Your task to perform on an android device: Check the settings for the Lyft app Image 0: 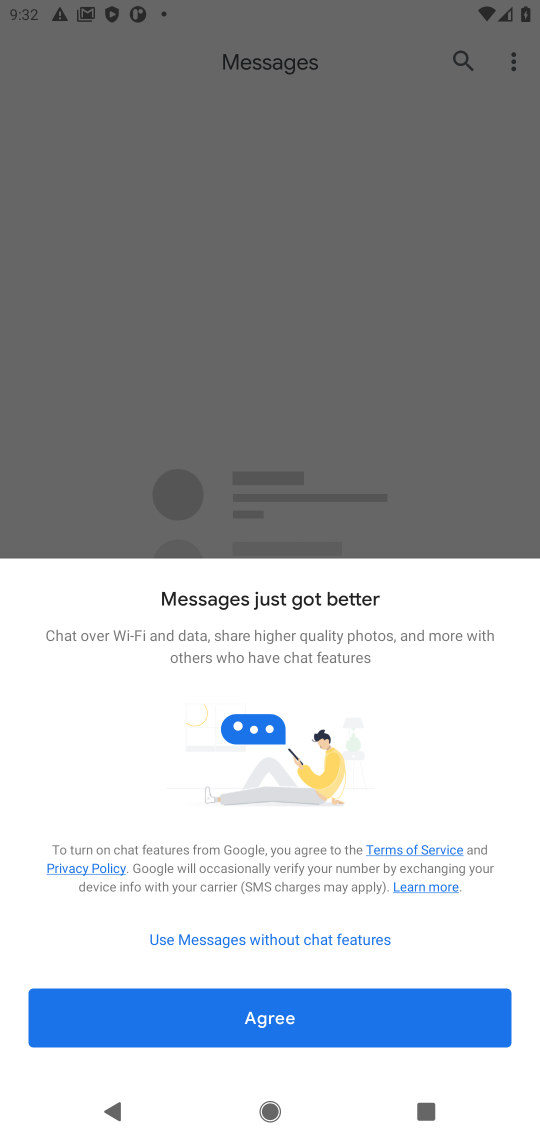
Step 0: press home button
Your task to perform on an android device: Check the settings for the Lyft app Image 1: 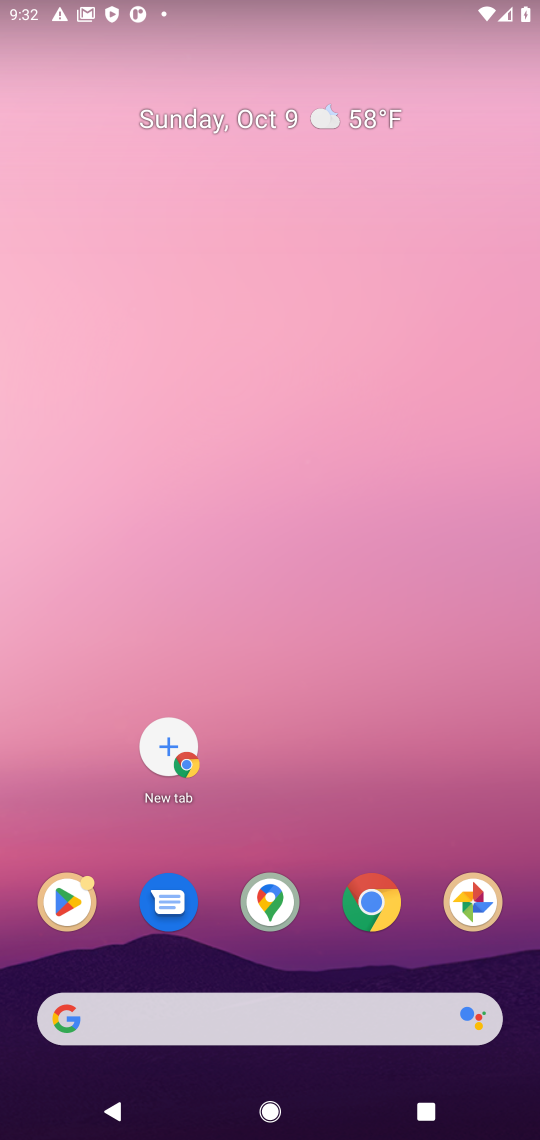
Step 1: click (64, 894)
Your task to perform on an android device: Check the settings for the Lyft app Image 2: 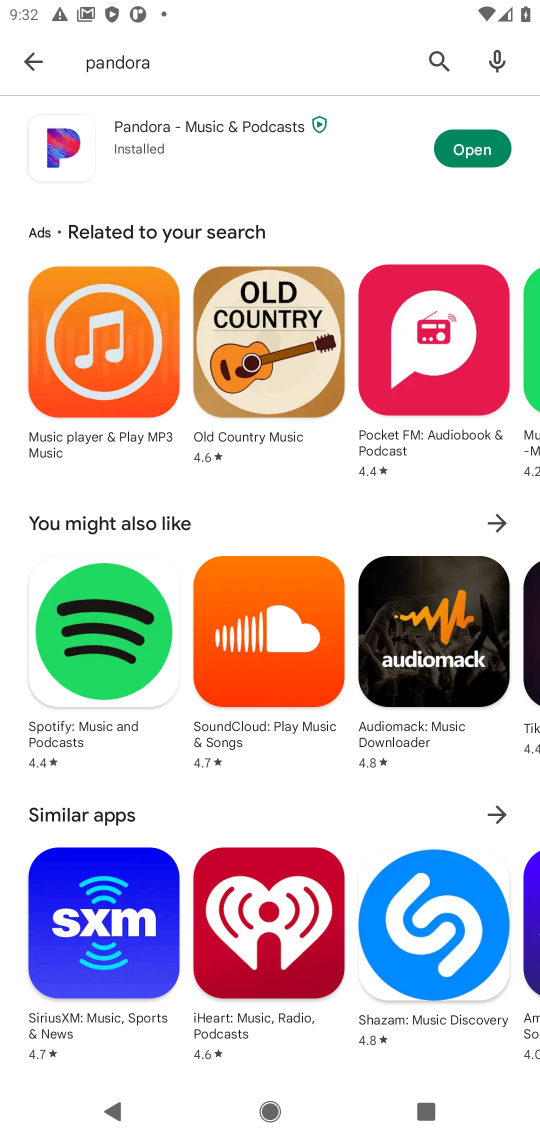
Step 2: click (437, 61)
Your task to perform on an android device: Check the settings for the Lyft app Image 3: 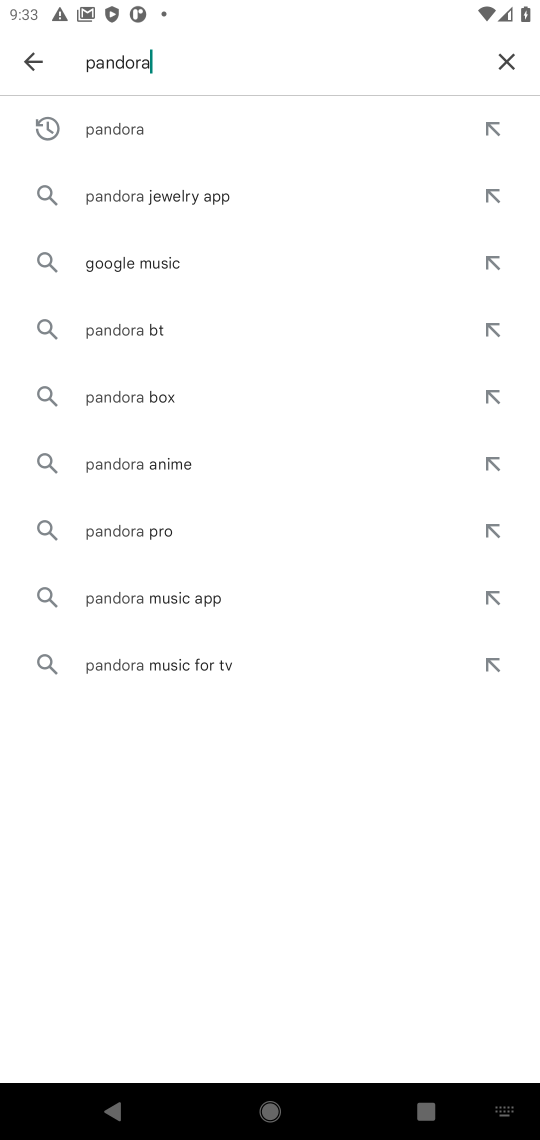
Step 3: click (506, 63)
Your task to perform on an android device: Check the settings for the Lyft app Image 4: 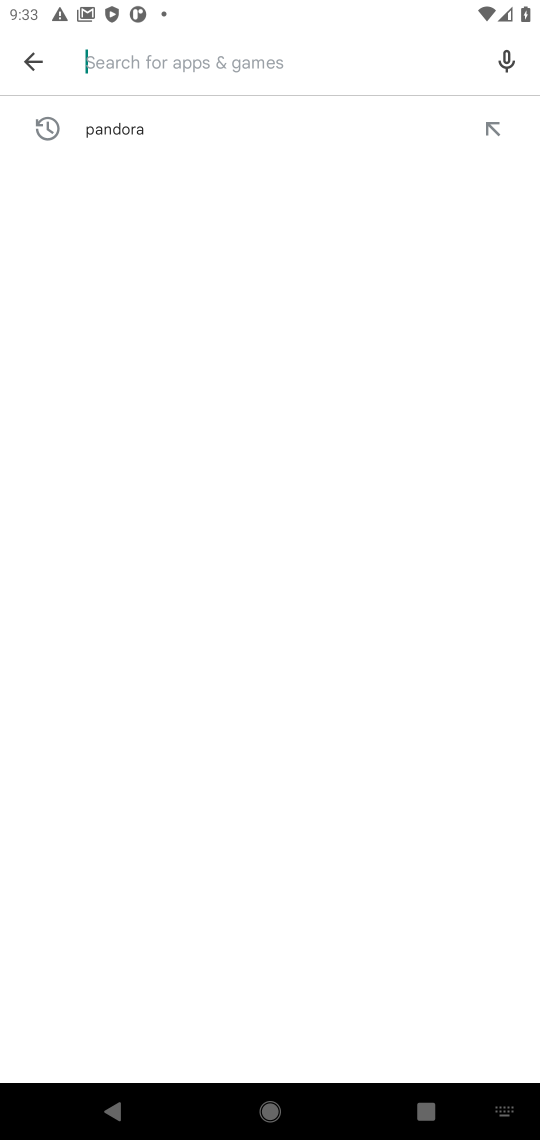
Step 4: type "lyft"
Your task to perform on an android device: Check the settings for the Lyft app Image 5: 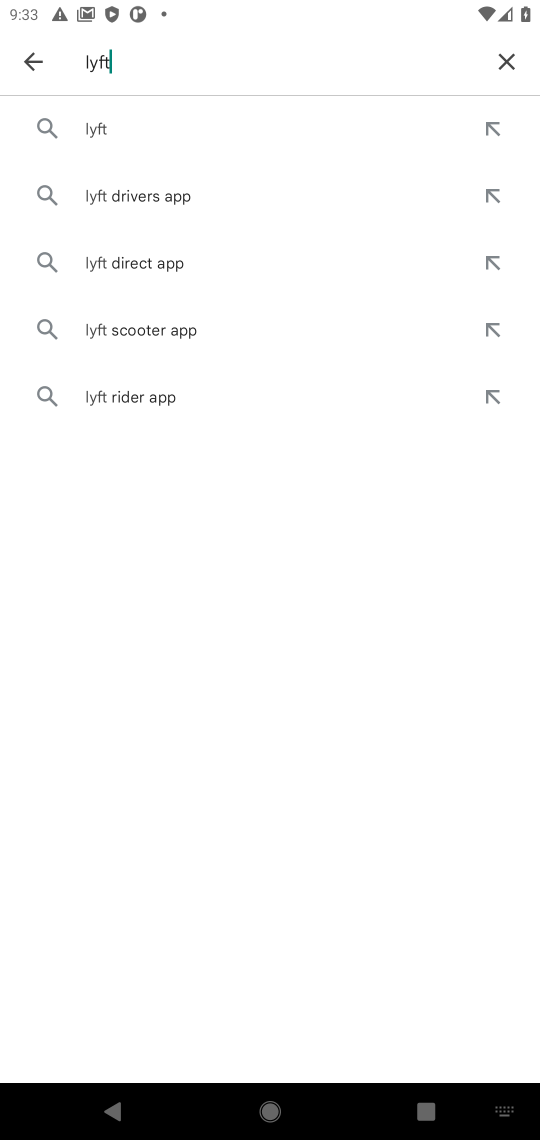
Step 5: click (103, 128)
Your task to perform on an android device: Check the settings for the Lyft app Image 6: 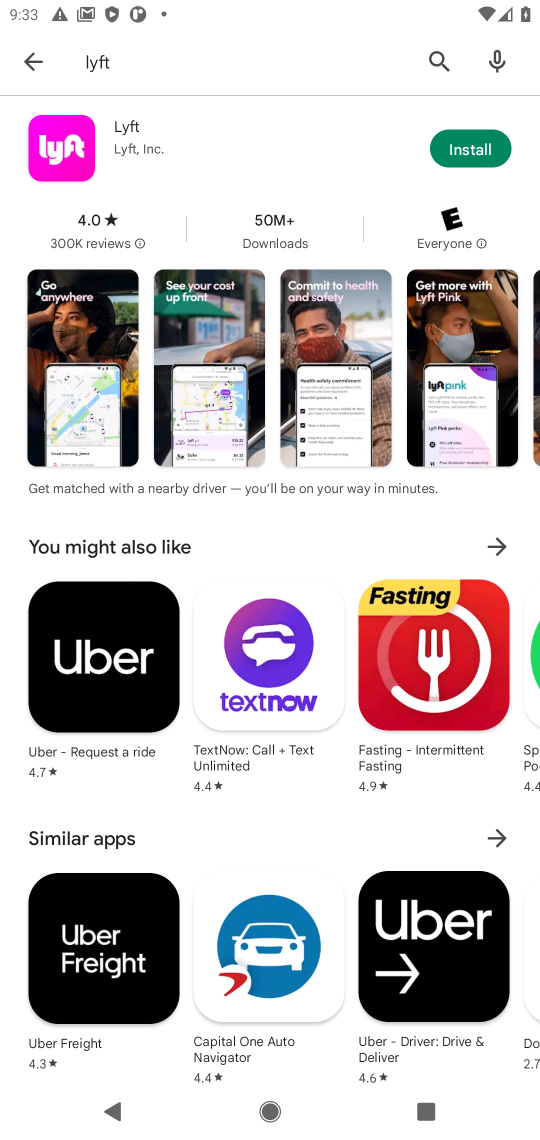
Step 6: click (463, 152)
Your task to perform on an android device: Check the settings for the Lyft app Image 7: 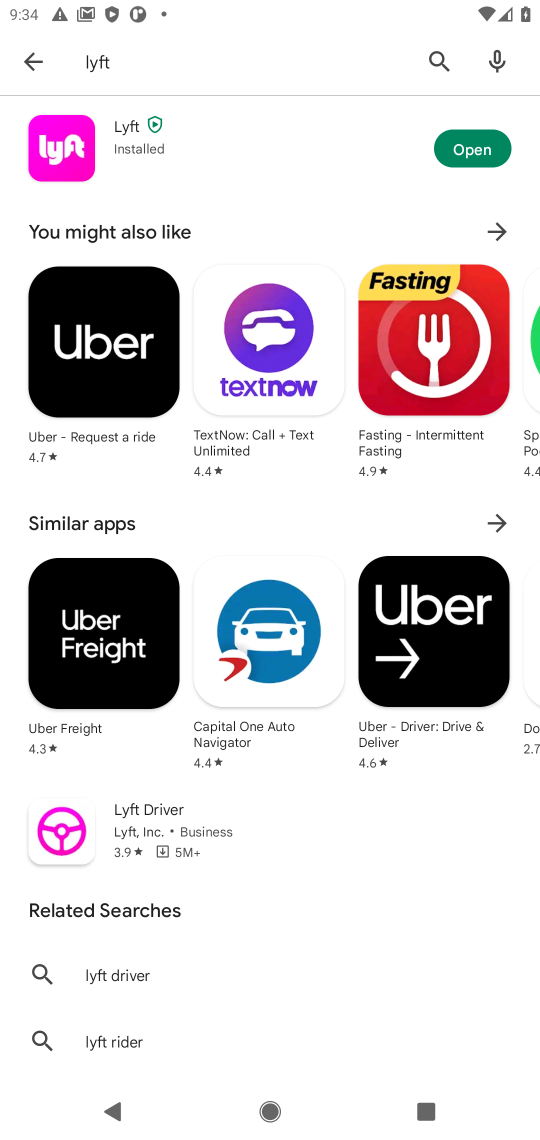
Step 7: click (457, 152)
Your task to perform on an android device: Check the settings for the Lyft app Image 8: 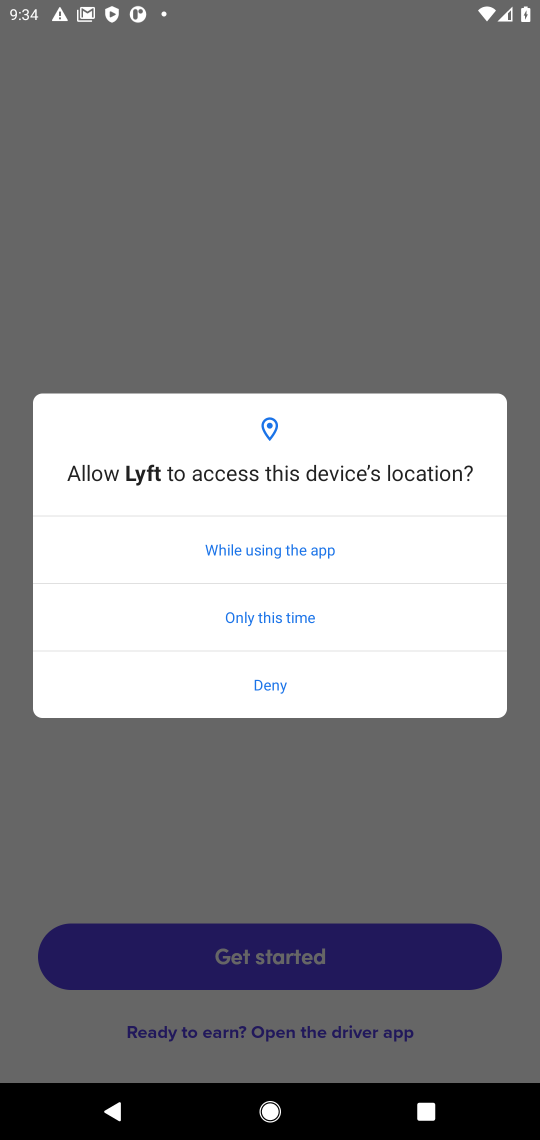
Step 8: click (304, 559)
Your task to perform on an android device: Check the settings for the Lyft app Image 9: 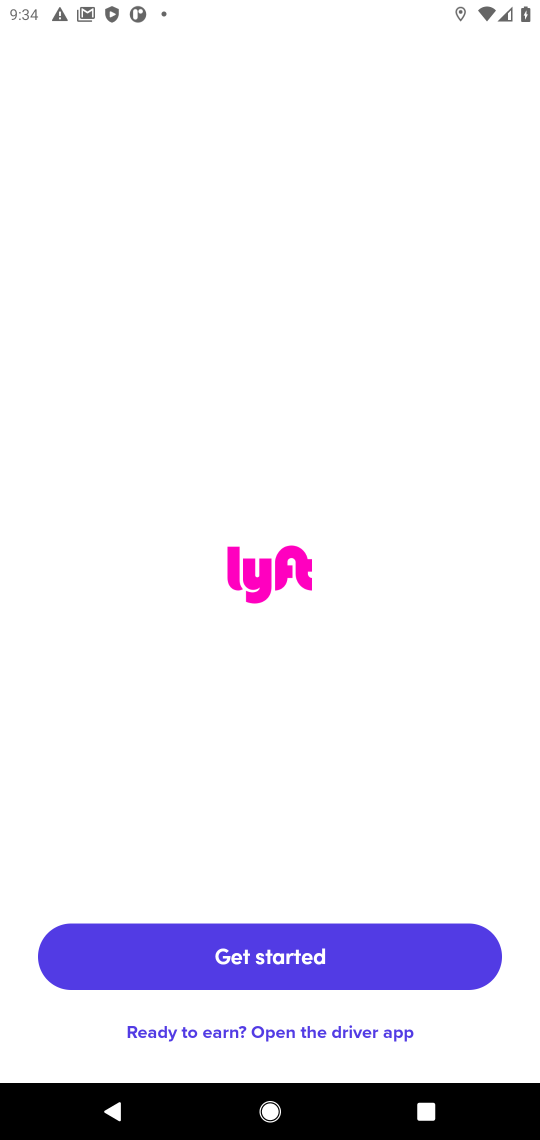
Step 9: click (275, 953)
Your task to perform on an android device: Check the settings for the Lyft app Image 10: 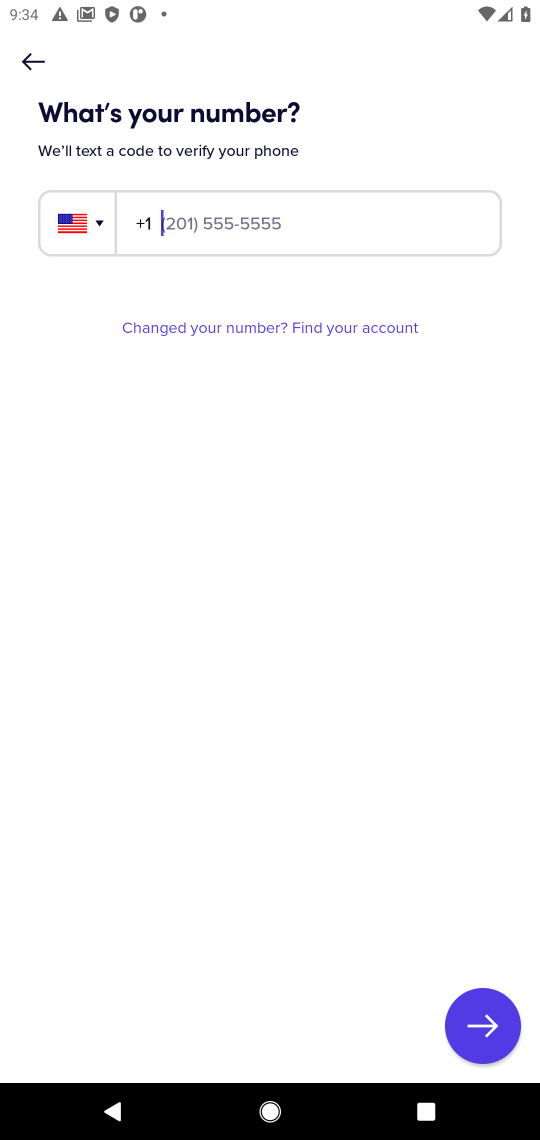
Step 10: click (33, 66)
Your task to perform on an android device: Check the settings for the Lyft app Image 11: 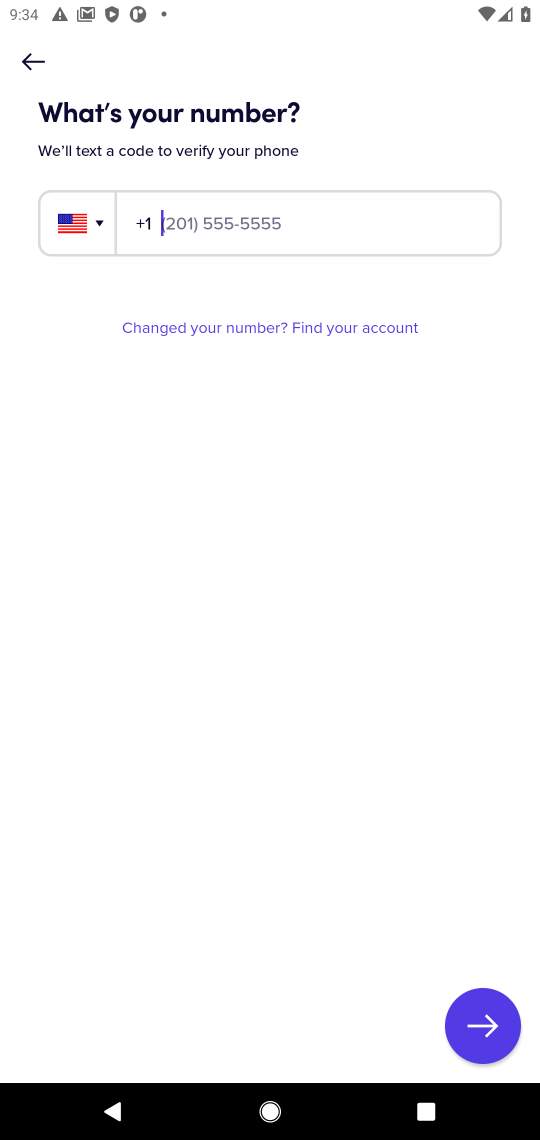
Step 11: click (37, 60)
Your task to perform on an android device: Check the settings for the Lyft app Image 12: 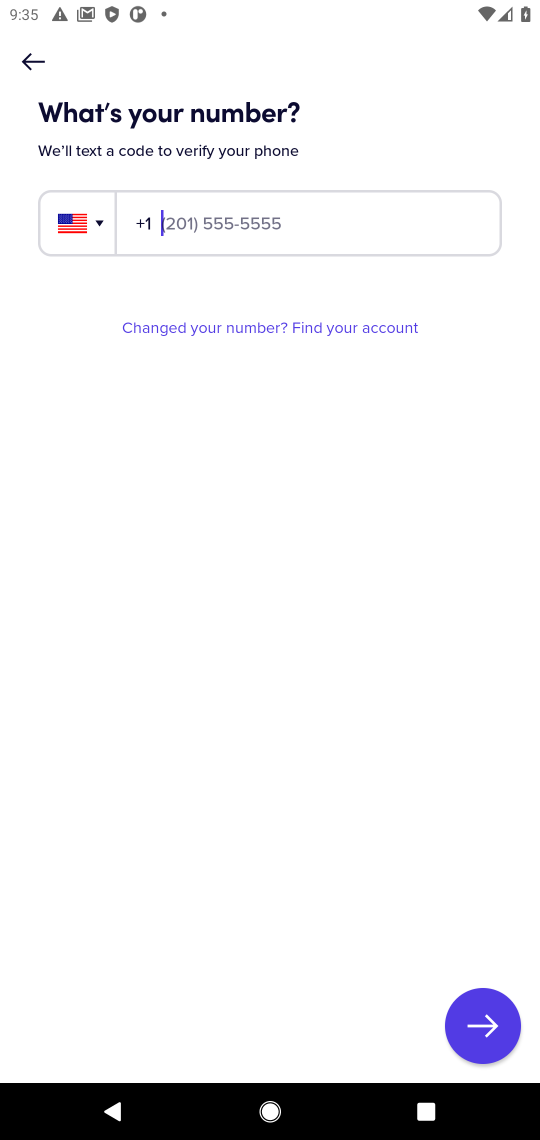
Step 12: press back button
Your task to perform on an android device: Check the settings for the Lyft app Image 13: 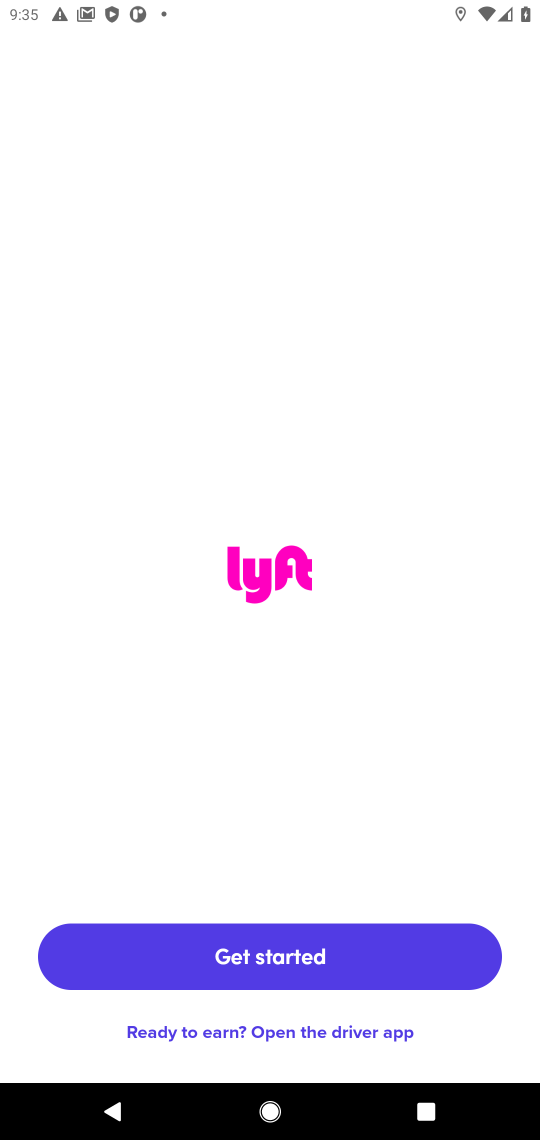
Step 13: click (240, 965)
Your task to perform on an android device: Check the settings for the Lyft app Image 14: 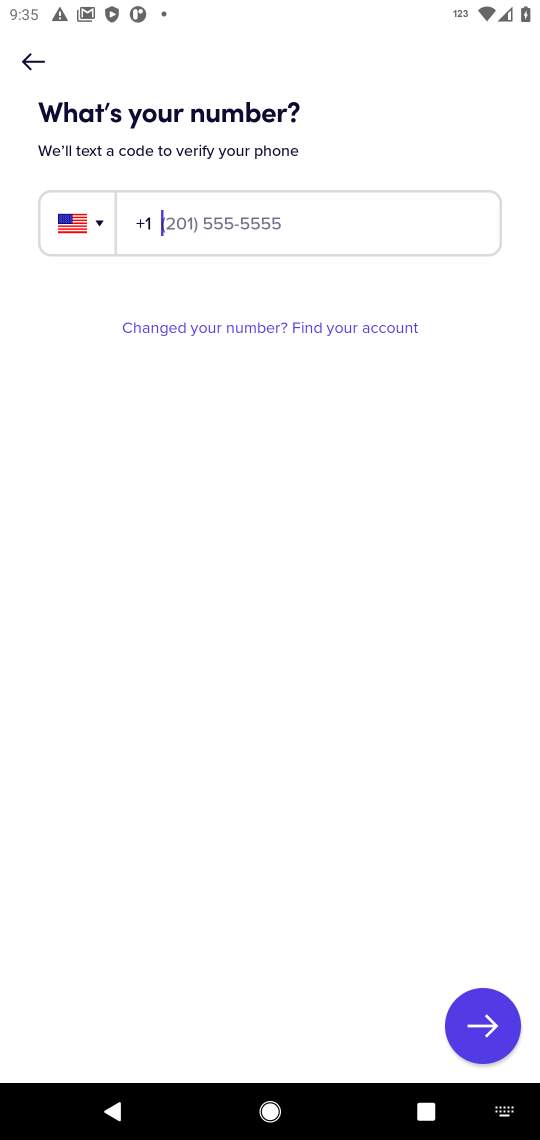
Step 14: task complete